Your task to perform on an android device: Open Android settings Image 0: 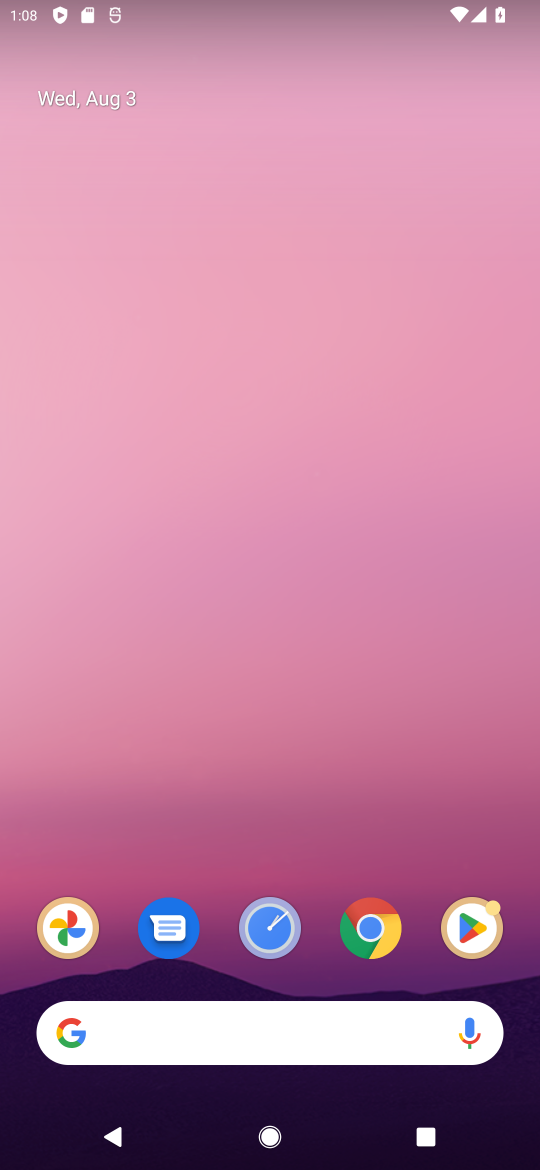
Step 0: drag from (511, 810) to (430, 236)
Your task to perform on an android device: Open Android settings Image 1: 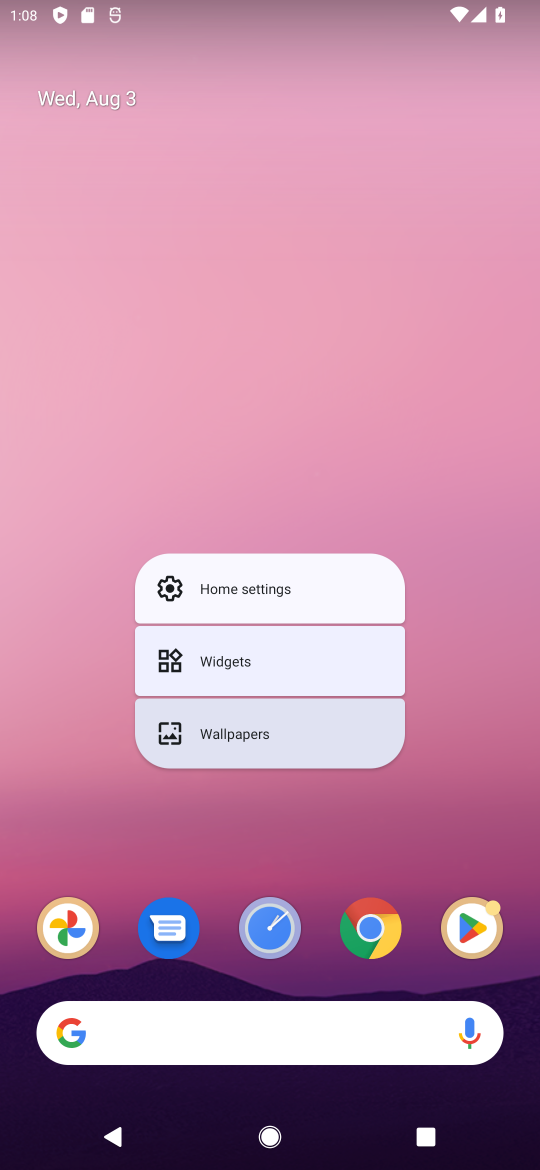
Step 1: click (497, 751)
Your task to perform on an android device: Open Android settings Image 2: 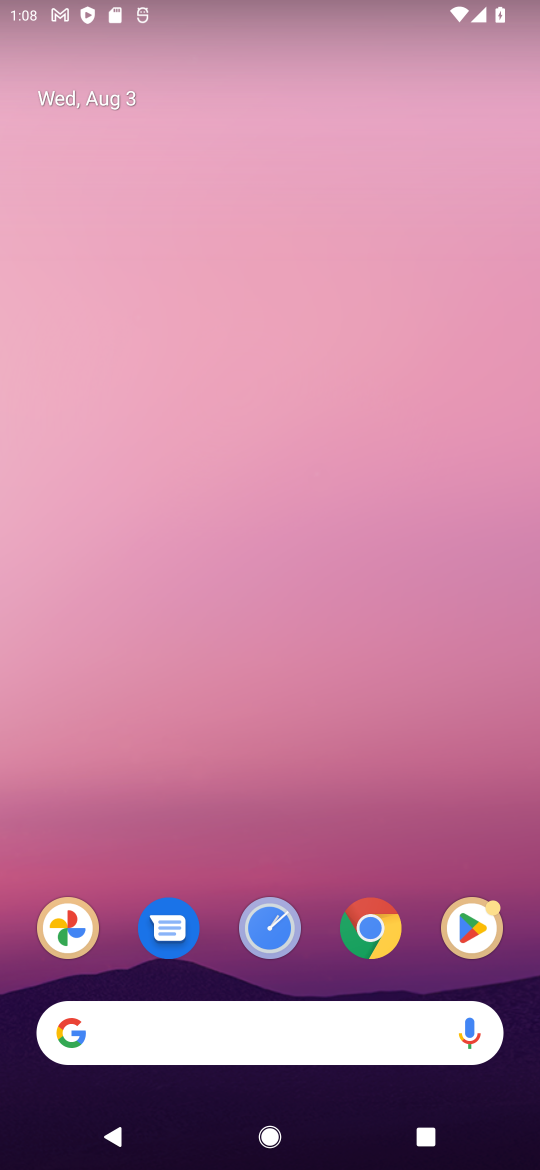
Step 2: drag from (511, 846) to (445, 282)
Your task to perform on an android device: Open Android settings Image 3: 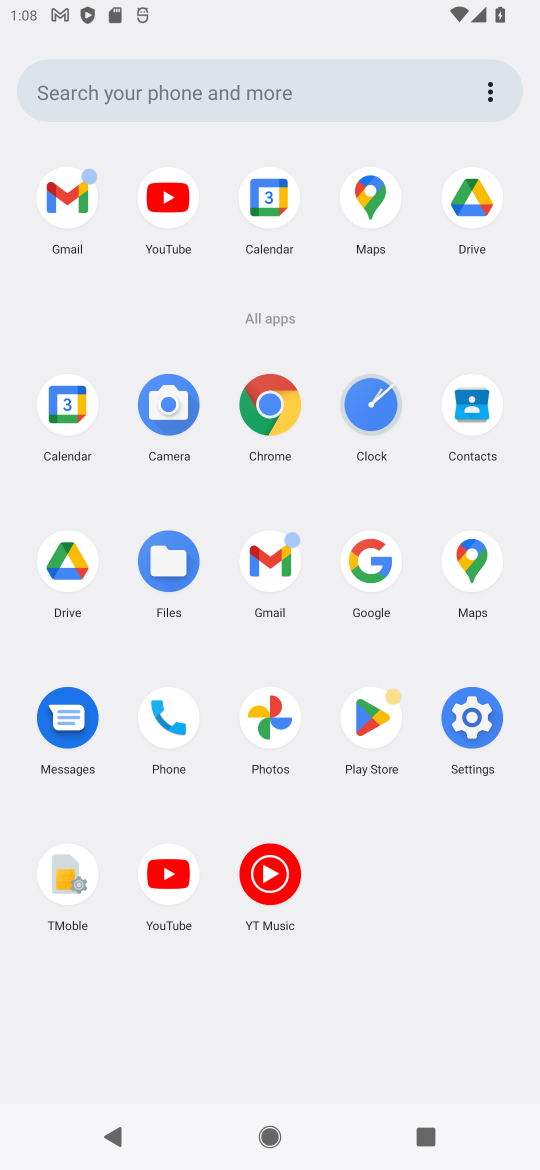
Step 3: click (471, 735)
Your task to perform on an android device: Open Android settings Image 4: 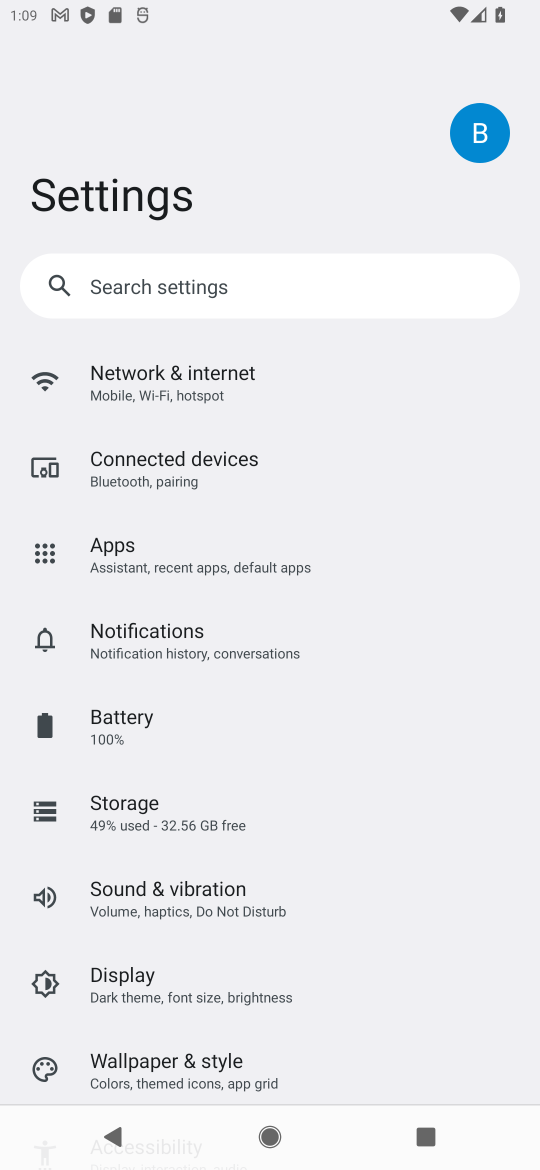
Step 4: task complete